Your task to perform on an android device: Open network settings Image 0: 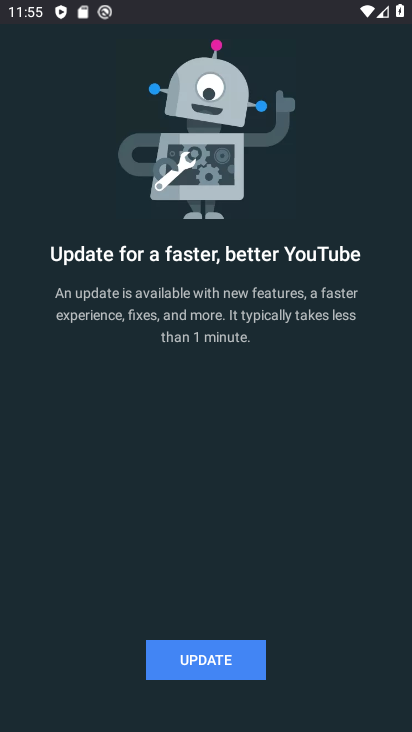
Step 0: drag from (338, 593) to (412, 472)
Your task to perform on an android device: Open network settings Image 1: 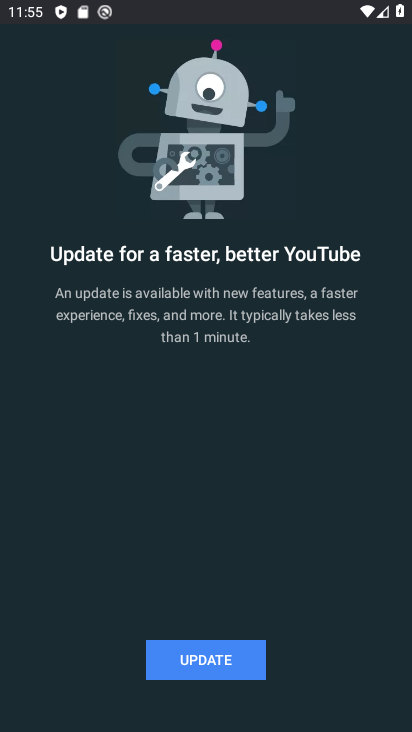
Step 1: press home button
Your task to perform on an android device: Open network settings Image 2: 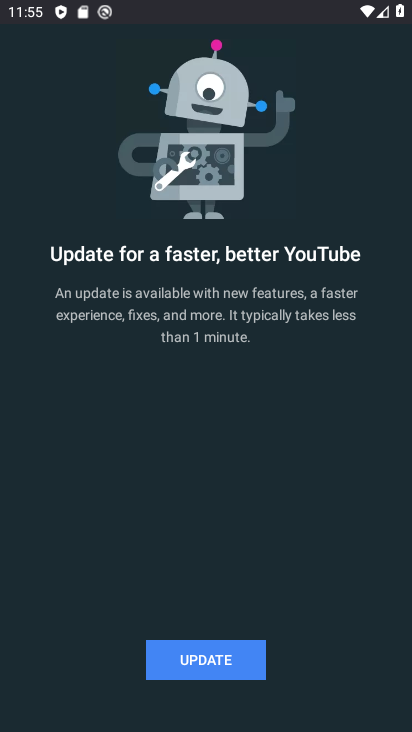
Step 2: drag from (412, 472) to (407, 562)
Your task to perform on an android device: Open network settings Image 3: 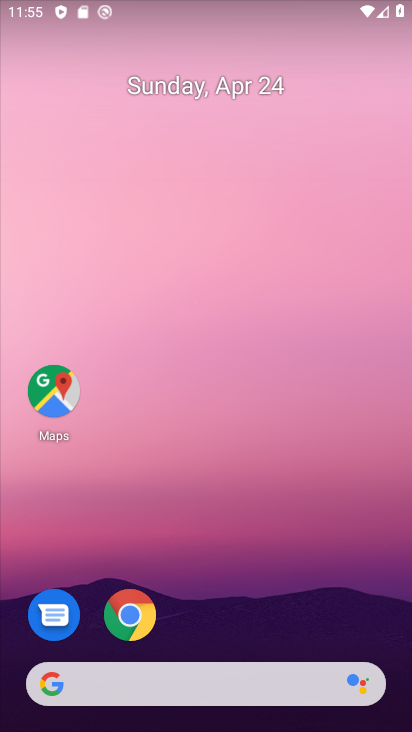
Step 3: drag from (354, 596) to (384, 124)
Your task to perform on an android device: Open network settings Image 4: 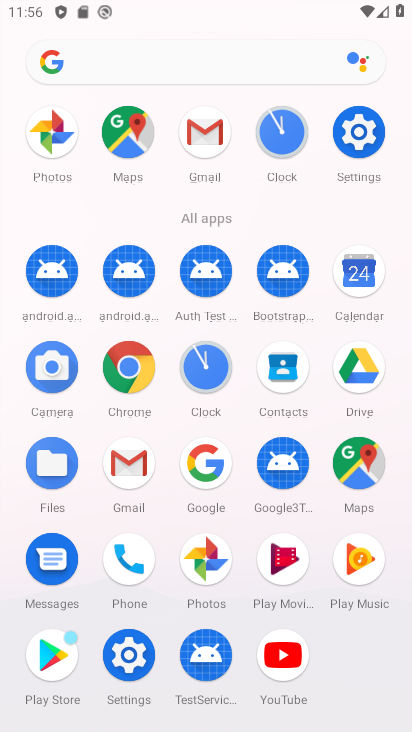
Step 4: click (362, 138)
Your task to perform on an android device: Open network settings Image 5: 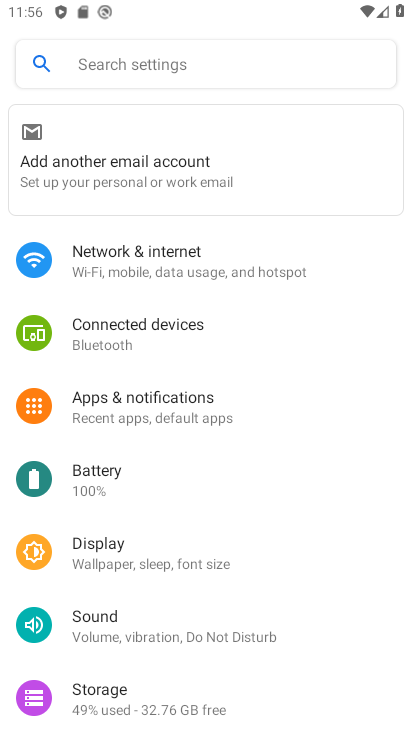
Step 5: drag from (352, 549) to (349, 441)
Your task to perform on an android device: Open network settings Image 6: 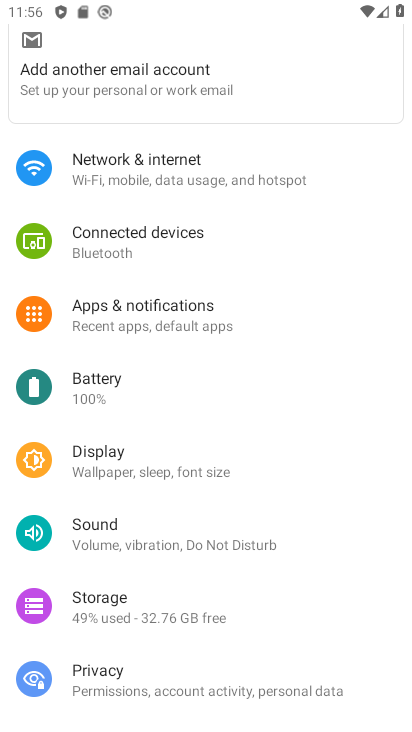
Step 6: click (225, 178)
Your task to perform on an android device: Open network settings Image 7: 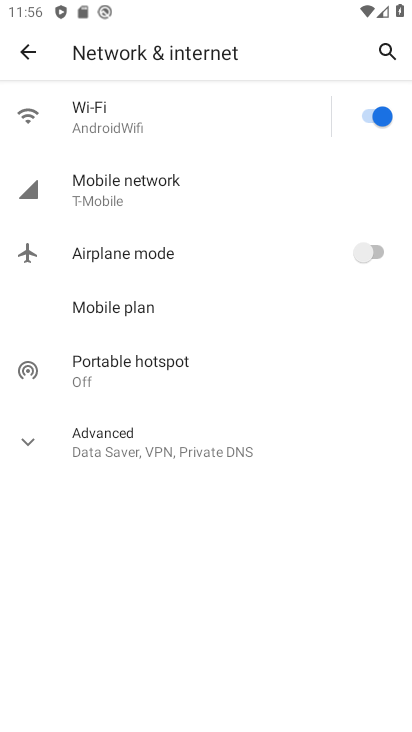
Step 7: task complete